Your task to perform on an android device: Open location settings Image 0: 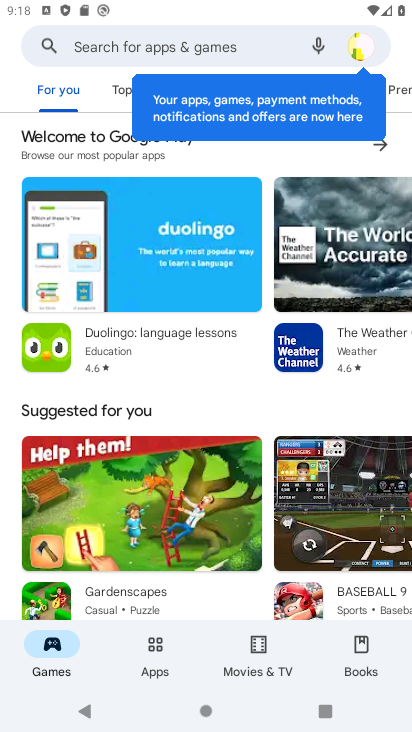
Step 0: press home button
Your task to perform on an android device: Open location settings Image 1: 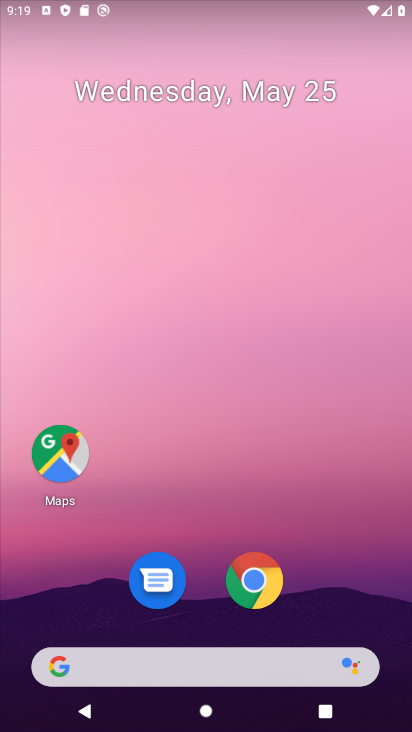
Step 1: press home button
Your task to perform on an android device: Open location settings Image 2: 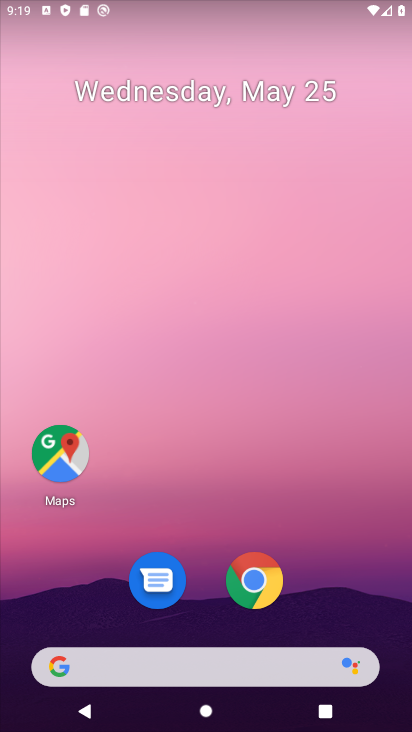
Step 2: drag from (48, 490) to (369, 39)
Your task to perform on an android device: Open location settings Image 3: 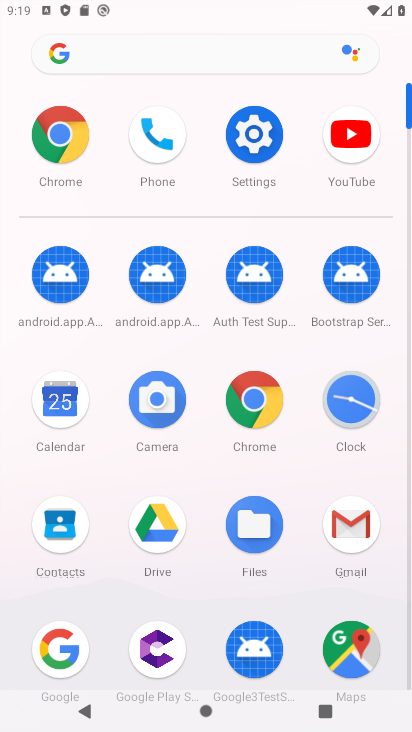
Step 3: click (219, 130)
Your task to perform on an android device: Open location settings Image 4: 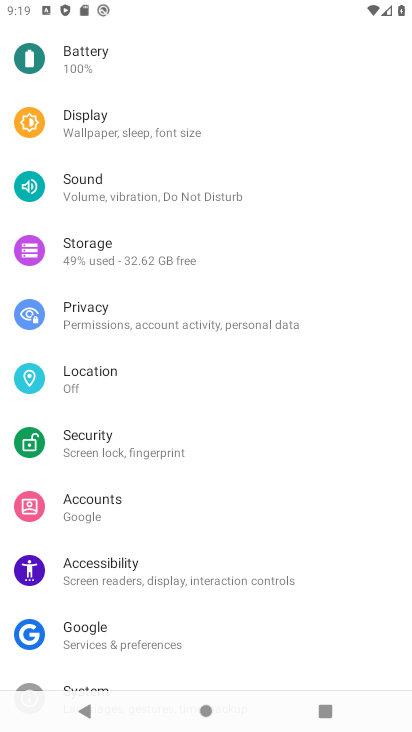
Step 4: click (97, 369)
Your task to perform on an android device: Open location settings Image 5: 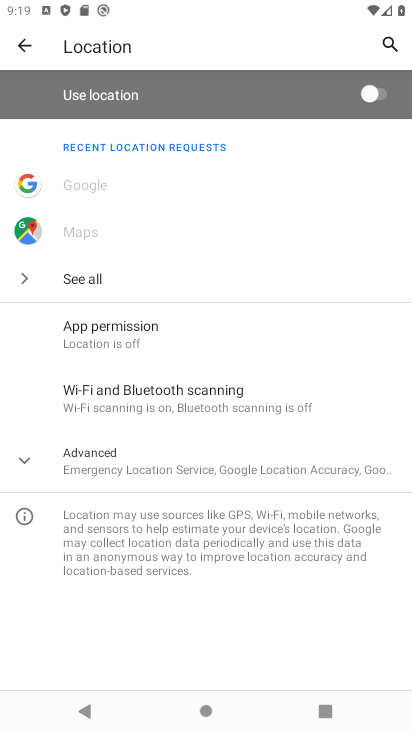
Step 5: task complete